Your task to perform on an android device: Go to Google Image 0: 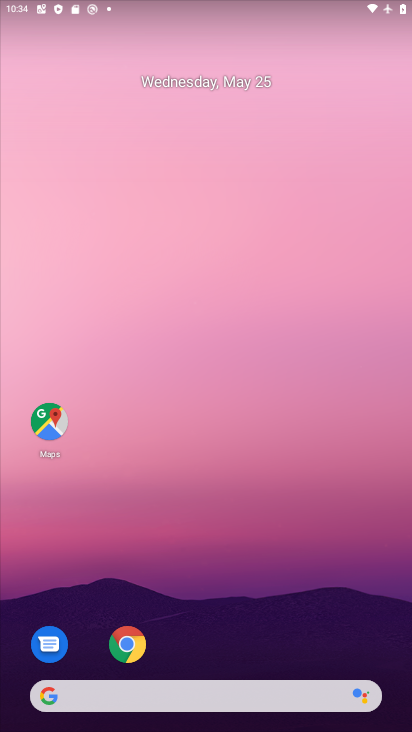
Step 0: drag from (252, 627) to (321, 118)
Your task to perform on an android device: Go to Google Image 1: 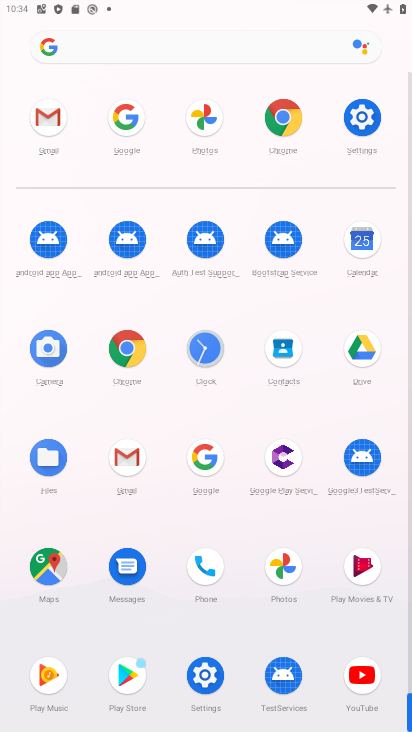
Step 1: click (210, 462)
Your task to perform on an android device: Go to Google Image 2: 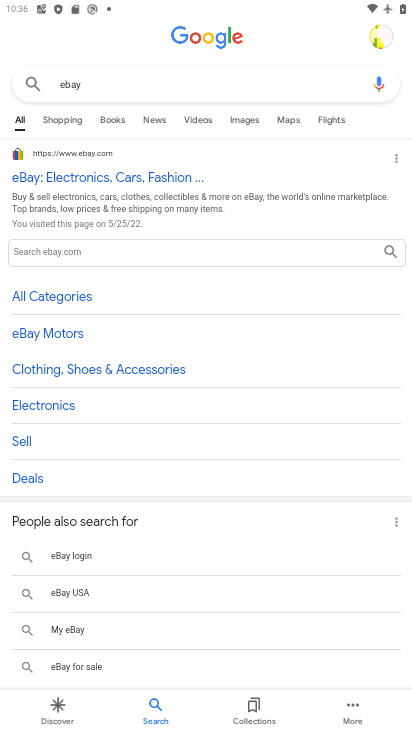
Step 2: task complete